Your task to perform on an android device: Turn on the flashlight Image 0: 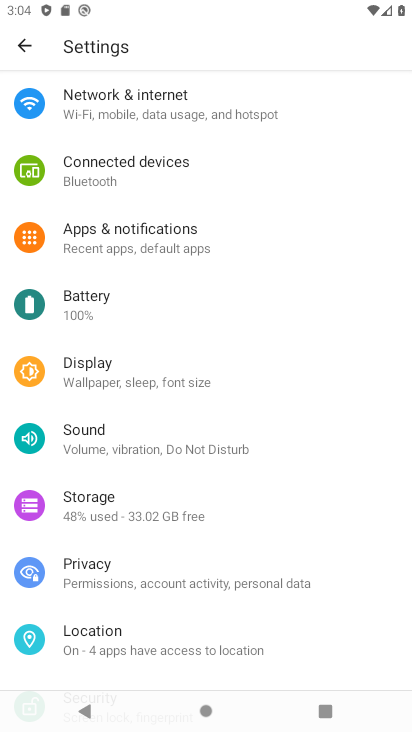
Step 0: drag from (234, 642) to (231, 160)
Your task to perform on an android device: Turn on the flashlight Image 1: 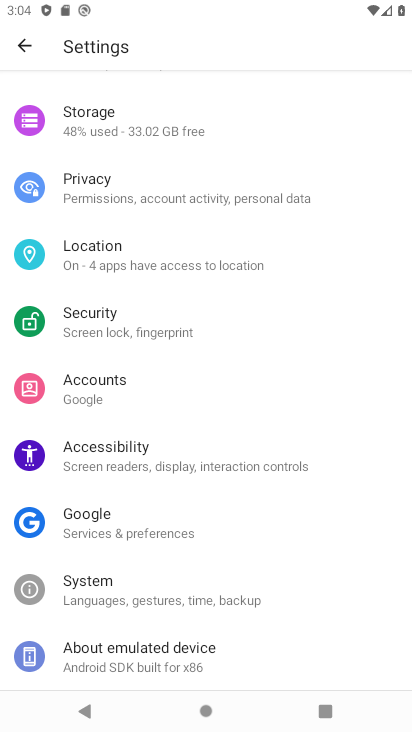
Step 1: task complete